Your task to perform on an android device: Open CNN.com Image 0: 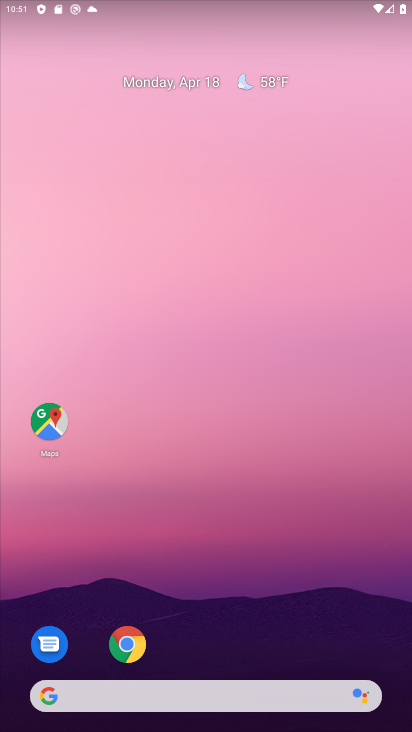
Step 0: click (124, 643)
Your task to perform on an android device: Open CNN.com Image 1: 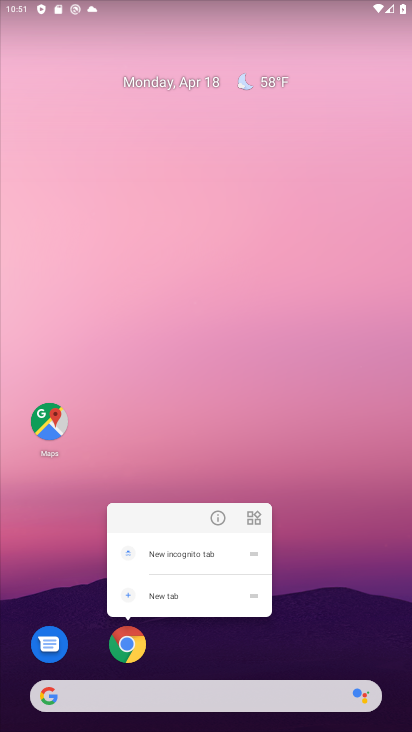
Step 1: click (206, 523)
Your task to perform on an android device: Open CNN.com Image 2: 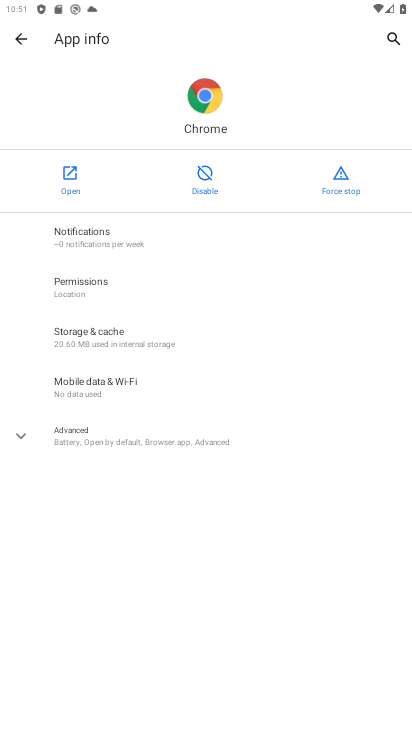
Step 2: click (73, 188)
Your task to perform on an android device: Open CNN.com Image 3: 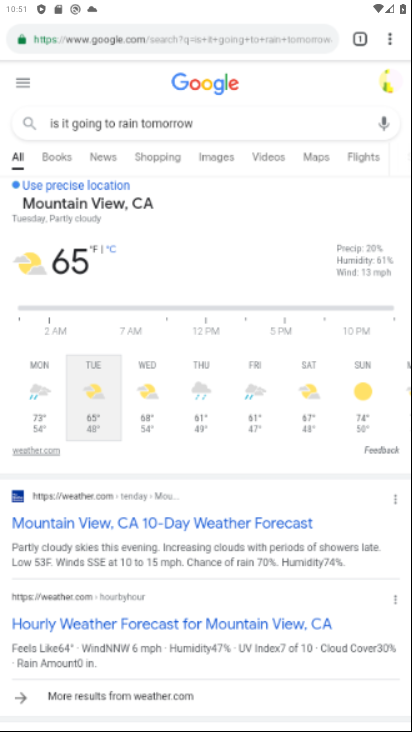
Step 3: click (148, 46)
Your task to perform on an android device: Open CNN.com Image 4: 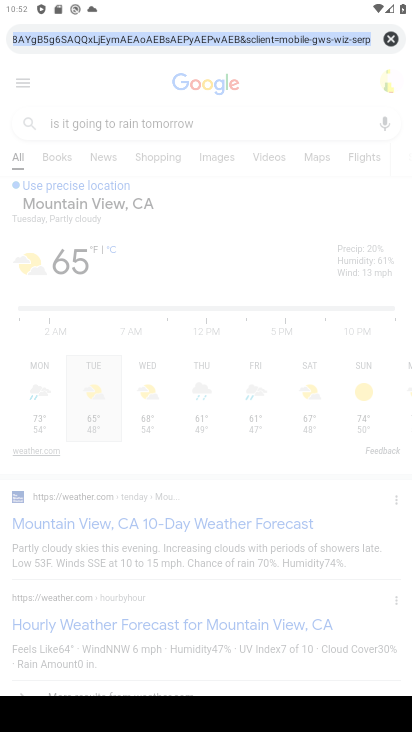
Step 4: type "CNN.com"
Your task to perform on an android device: Open CNN.com Image 5: 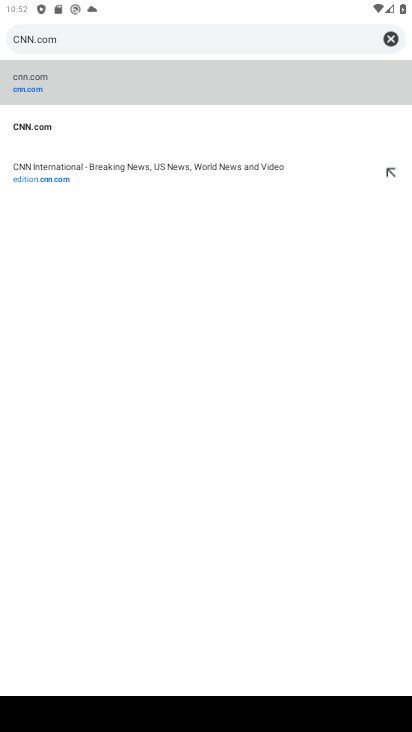
Step 5: click (82, 95)
Your task to perform on an android device: Open CNN.com Image 6: 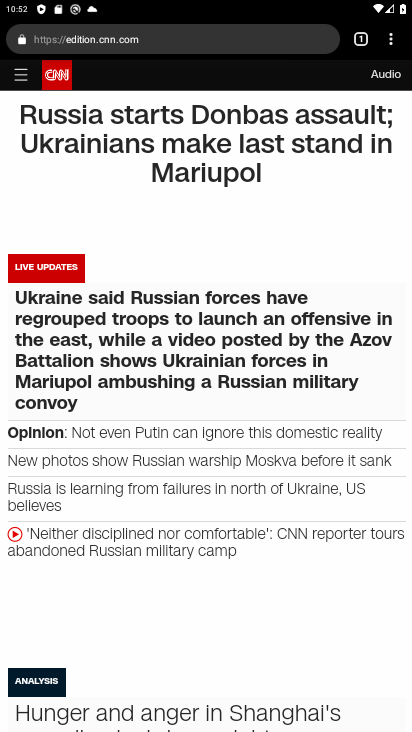
Step 6: task complete